Your task to perform on an android device: What is the recent news? Image 0: 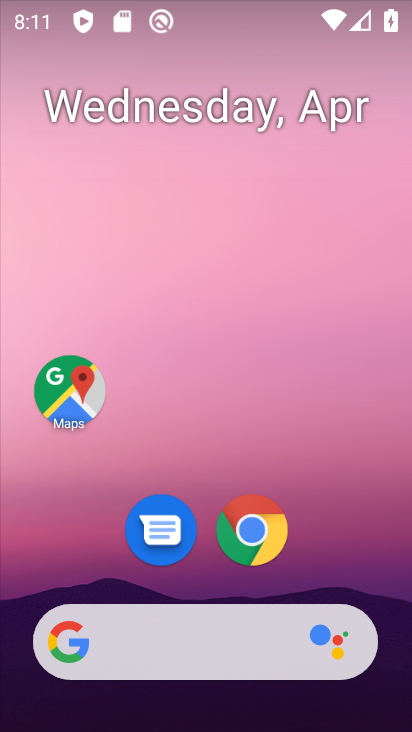
Step 0: click (255, 554)
Your task to perform on an android device: What is the recent news? Image 1: 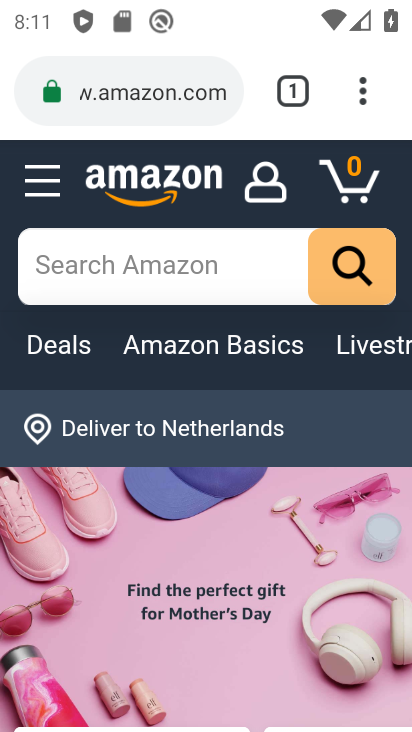
Step 1: click (169, 82)
Your task to perform on an android device: What is the recent news? Image 2: 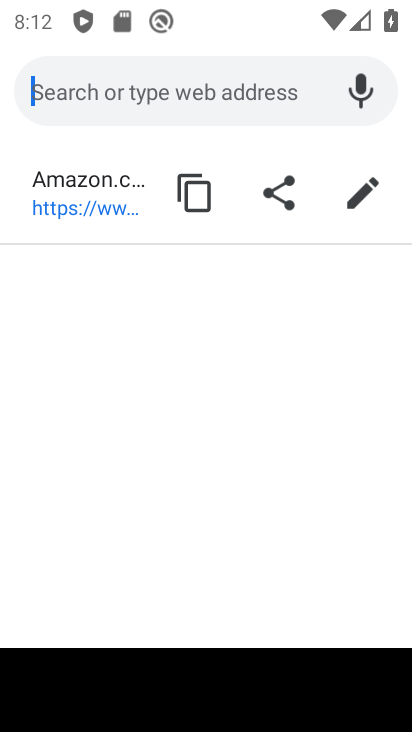
Step 2: type "recent news"
Your task to perform on an android device: What is the recent news? Image 3: 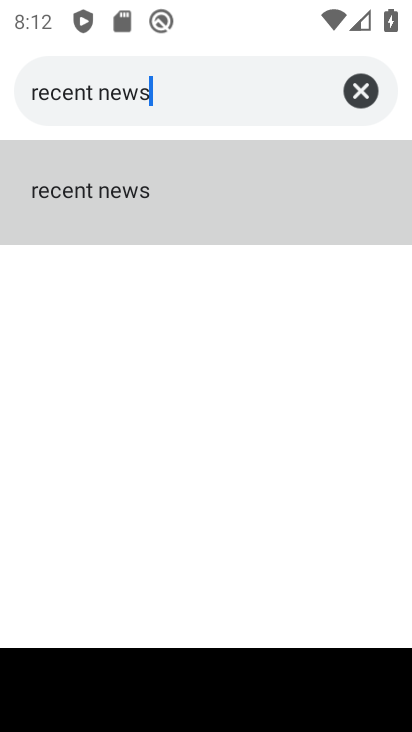
Step 3: click (107, 195)
Your task to perform on an android device: What is the recent news? Image 4: 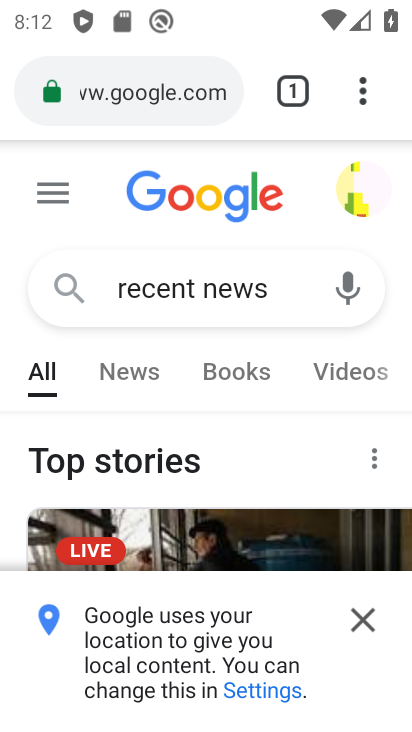
Step 4: click (369, 616)
Your task to perform on an android device: What is the recent news? Image 5: 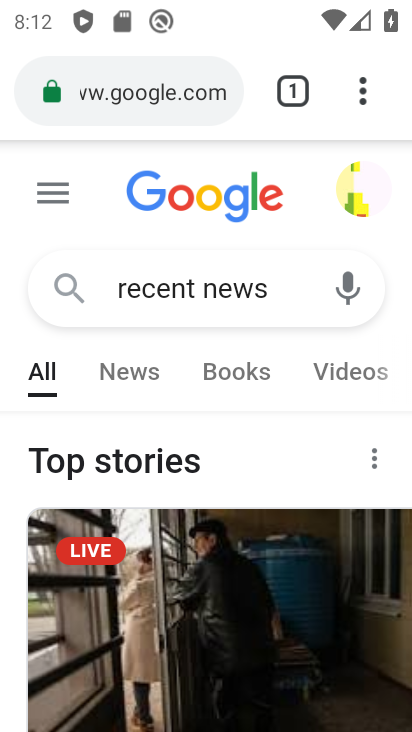
Step 5: task complete